Your task to perform on an android device: Check the weather Image 0: 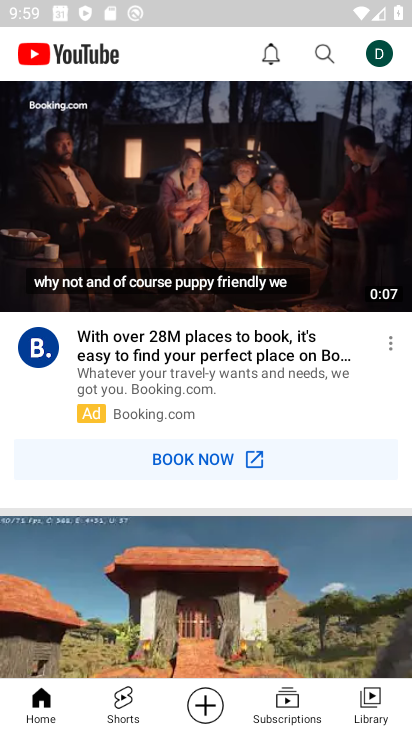
Step 0: press home button
Your task to perform on an android device: Check the weather Image 1: 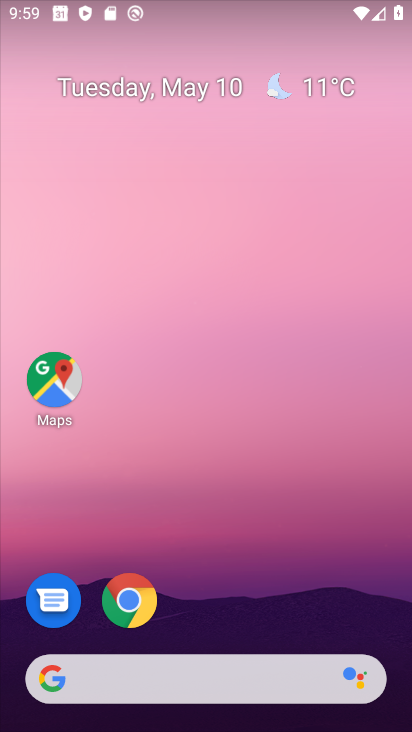
Step 1: click (338, 81)
Your task to perform on an android device: Check the weather Image 2: 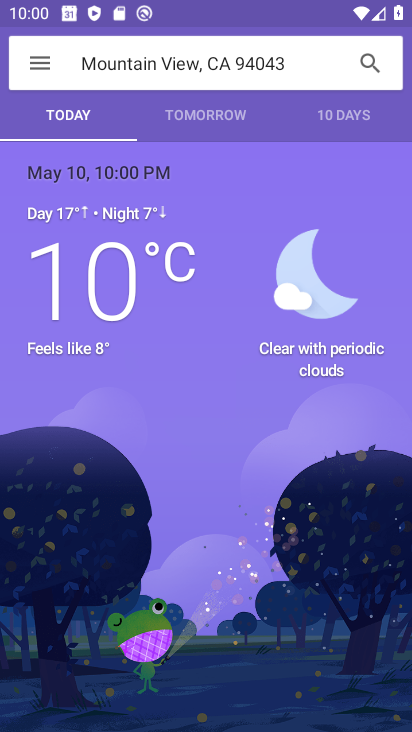
Step 2: task complete